Your task to perform on an android device: Open Chrome and go to the settings page Image 0: 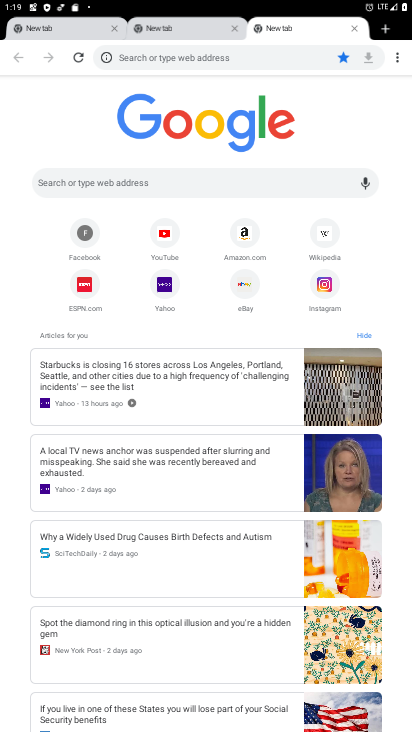
Step 0: click (394, 51)
Your task to perform on an android device: Open Chrome and go to the settings page Image 1: 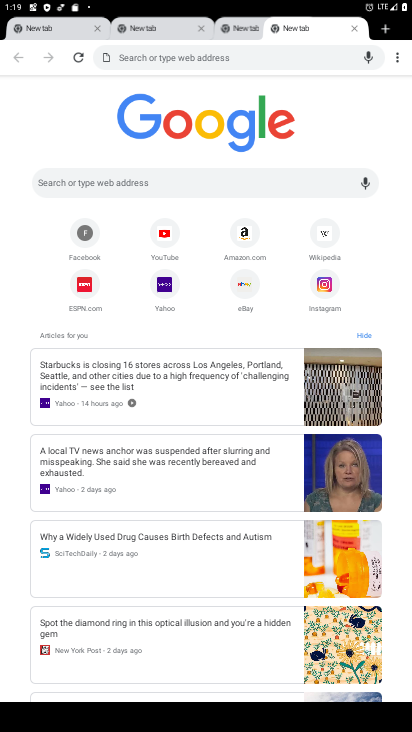
Step 1: click (399, 55)
Your task to perform on an android device: Open Chrome and go to the settings page Image 2: 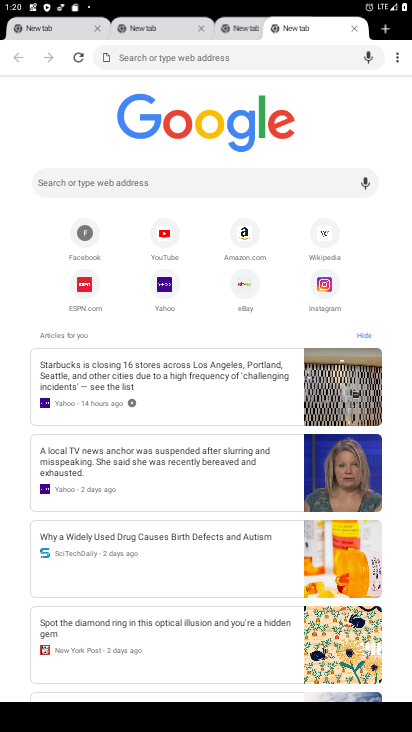
Step 2: click (397, 55)
Your task to perform on an android device: Open Chrome and go to the settings page Image 3: 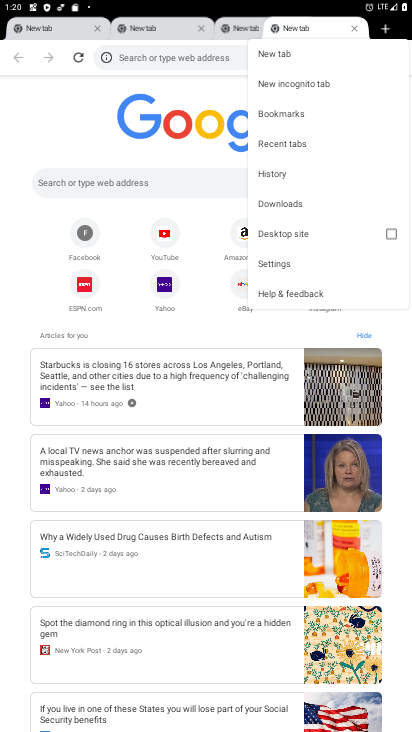
Step 3: click (279, 261)
Your task to perform on an android device: Open Chrome and go to the settings page Image 4: 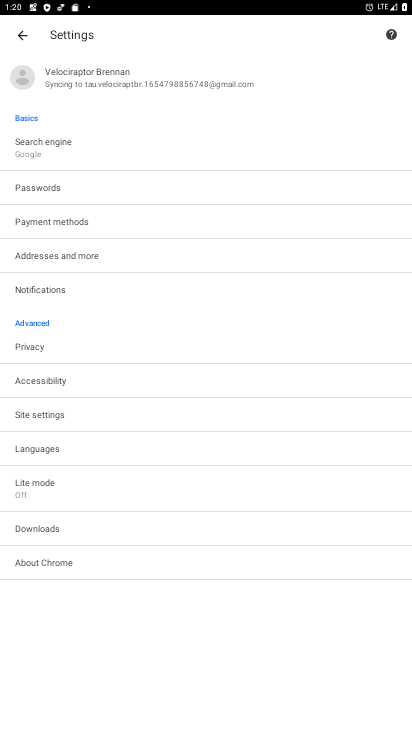
Step 4: task complete